Your task to perform on an android device: Open Google Image 0: 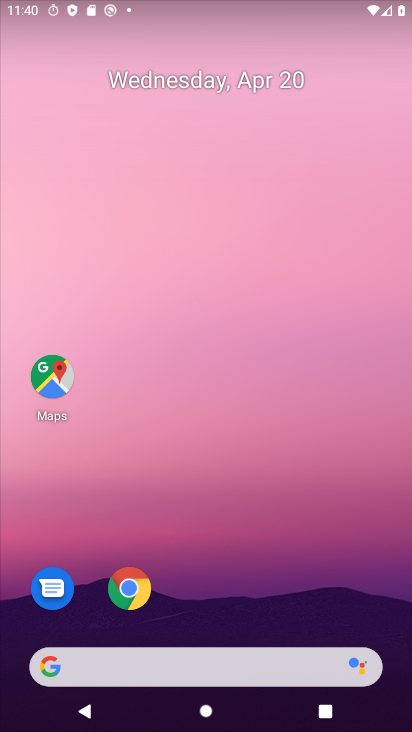
Step 0: drag from (221, 608) to (208, 45)
Your task to perform on an android device: Open Google Image 1: 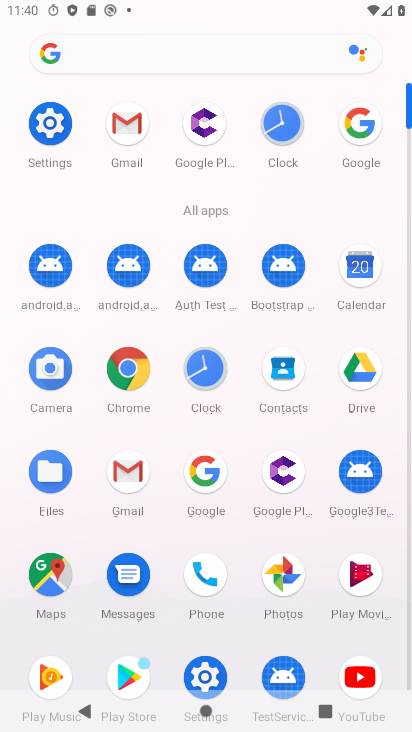
Step 1: click (202, 467)
Your task to perform on an android device: Open Google Image 2: 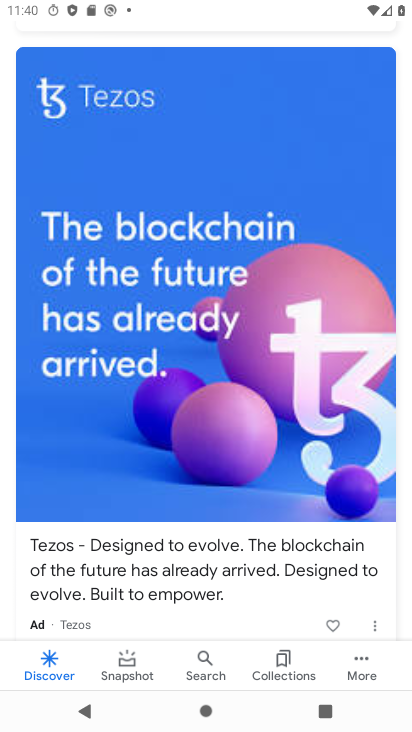
Step 2: task complete